Your task to perform on an android device: toggle pop-ups in chrome Image 0: 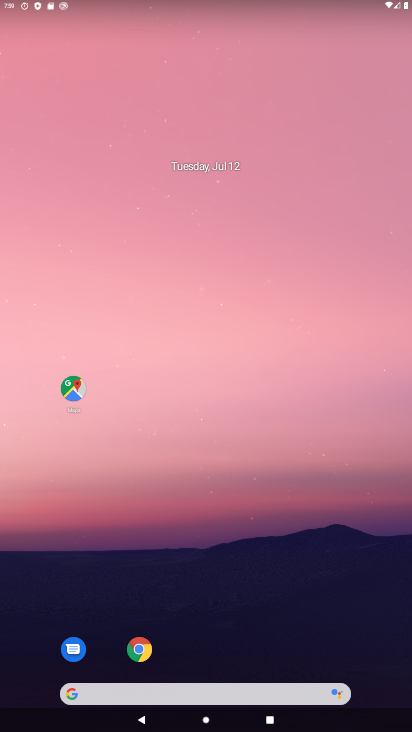
Step 0: drag from (309, 620) to (272, 118)
Your task to perform on an android device: toggle pop-ups in chrome Image 1: 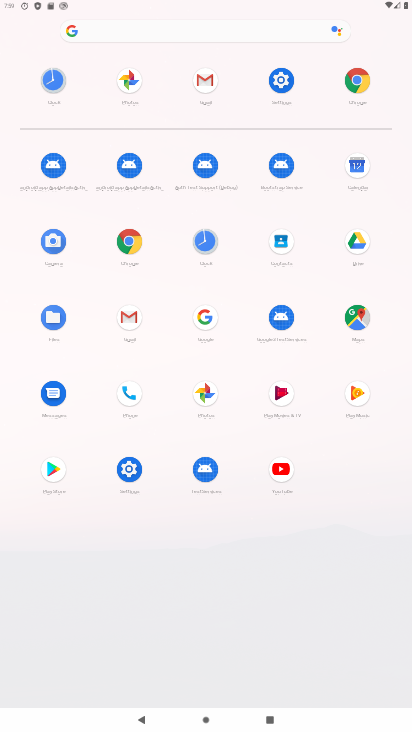
Step 1: click (137, 243)
Your task to perform on an android device: toggle pop-ups in chrome Image 2: 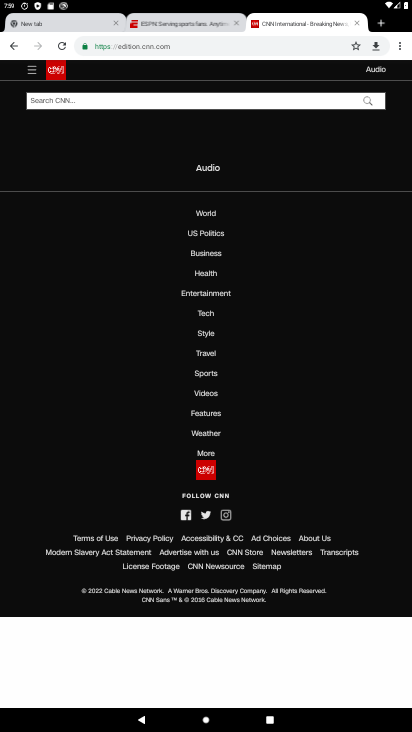
Step 2: drag from (403, 38) to (320, 343)
Your task to perform on an android device: toggle pop-ups in chrome Image 3: 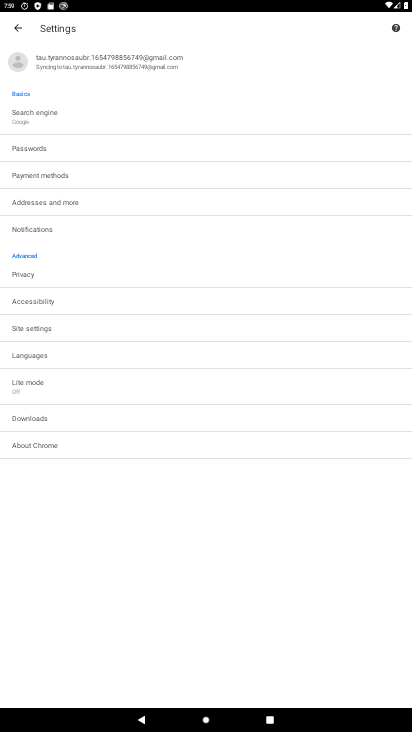
Step 3: click (38, 329)
Your task to perform on an android device: toggle pop-ups in chrome Image 4: 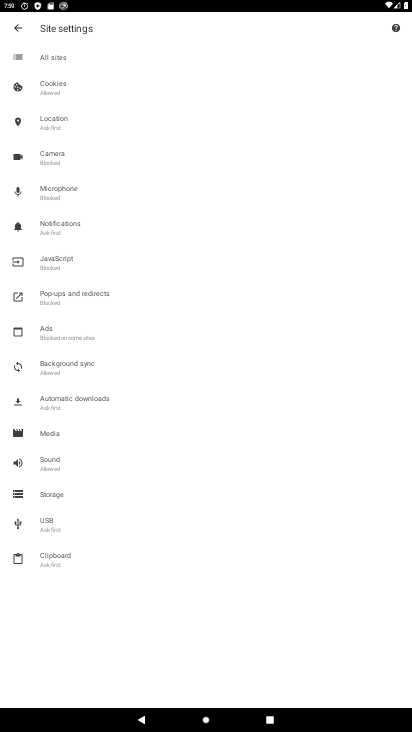
Step 4: click (63, 292)
Your task to perform on an android device: toggle pop-ups in chrome Image 5: 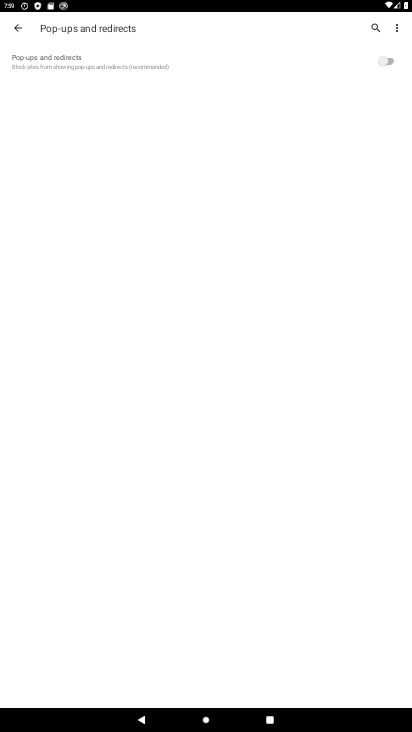
Step 5: click (388, 51)
Your task to perform on an android device: toggle pop-ups in chrome Image 6: 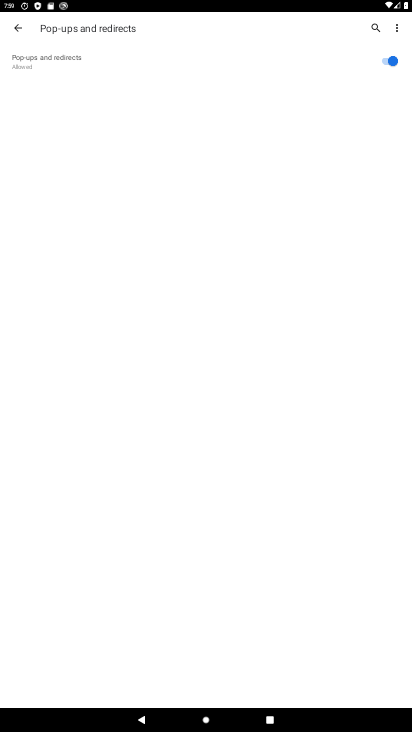
Step 6: task complete